Your task to perform on an android device: star an email in the gmail app Image 0: 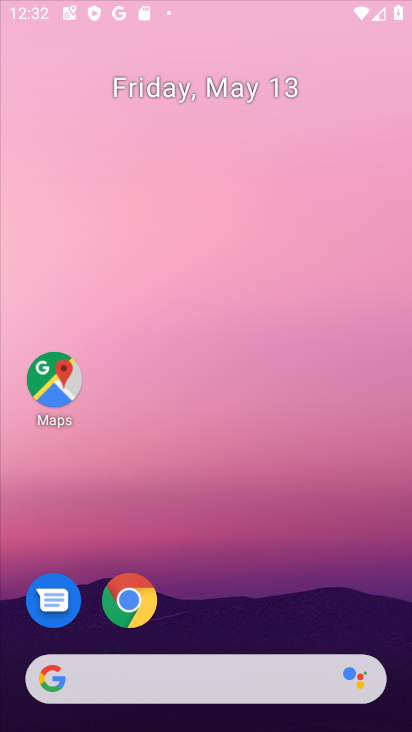
Step 0: drag from (238, 560) to (239, 185)
Your task to perform on an android device: star an email in the gmail app Image 1: 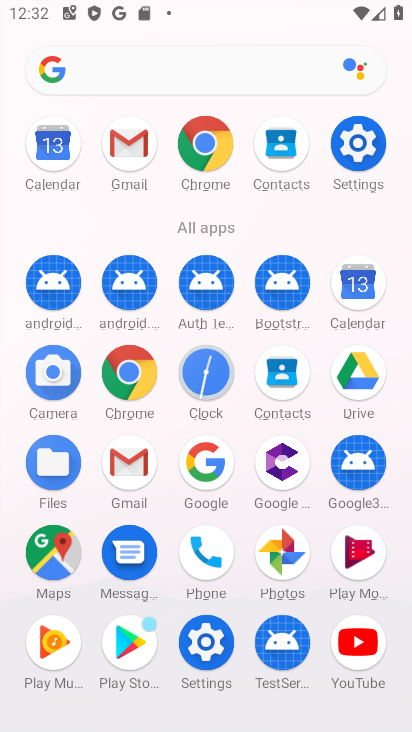
Step 1: drag from (247, 514) to (258, 99)
Your task to perform on an android device: star an email in the gmail app Image 2: 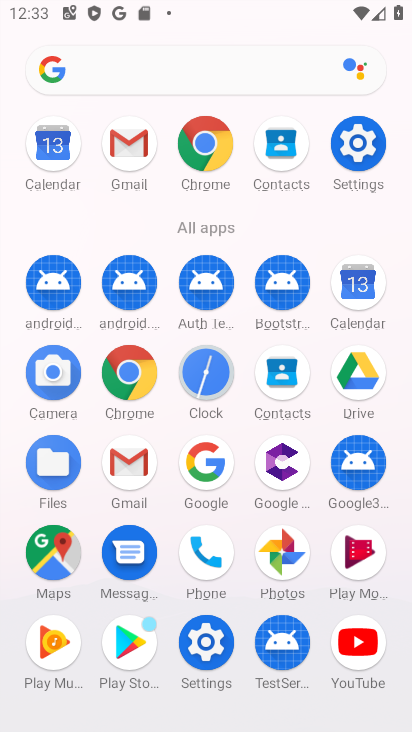
Step 2: click (119, 479)
Your task to perform on an android device: star an email in the gmail app Image 3: 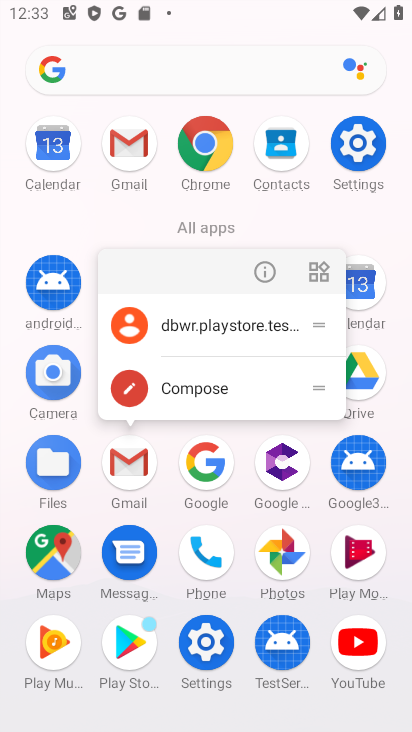
Step 3: click (266, 264)
Your task to perform on an android device: star an email in the gmail app Image 4: 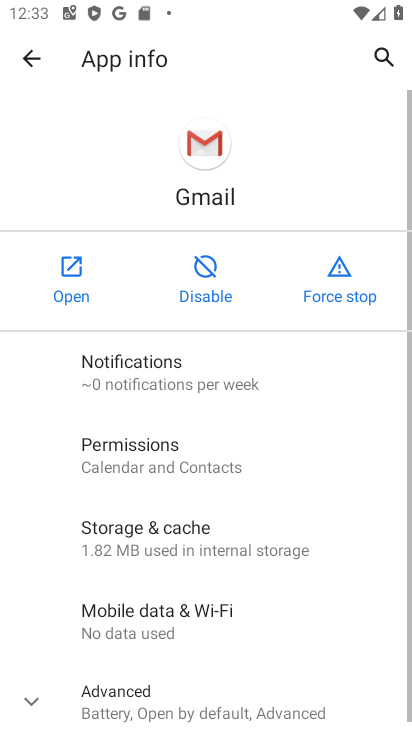
Step 4: click (59, 295)
Your task to perform on an android device: star an email in the gmail app Image 5: 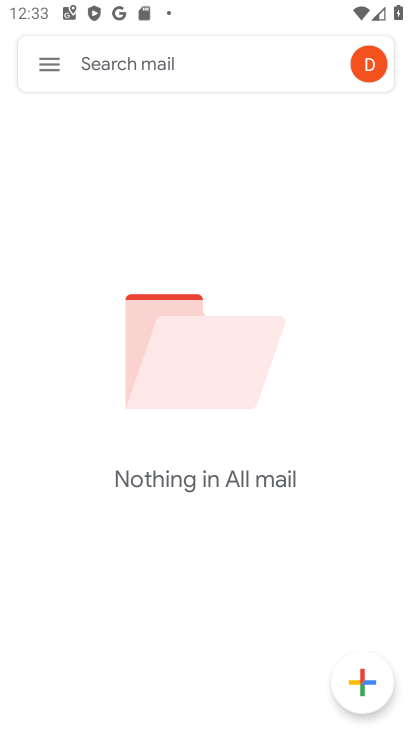
Step 5: drag from (289, 569) to (270, 248)
Your task to perform on an android device: star an email in the gmail app Image 6: 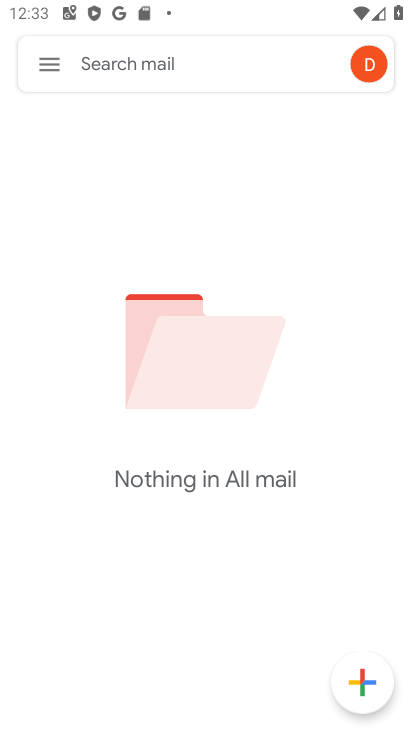
Step 6: click (47, 71)
Your task to perform on an android device: star an email in the gmail app Image 7: 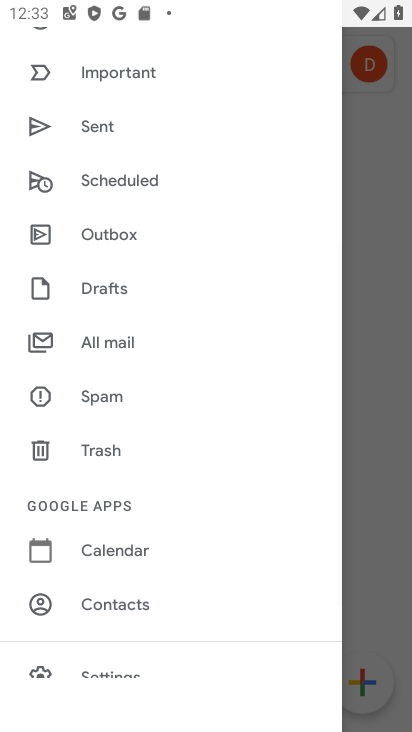
Step 7: drag from (248, 667) to (117, 217)
Your task to perform on an android device: star an email in the gmail app Image 8: 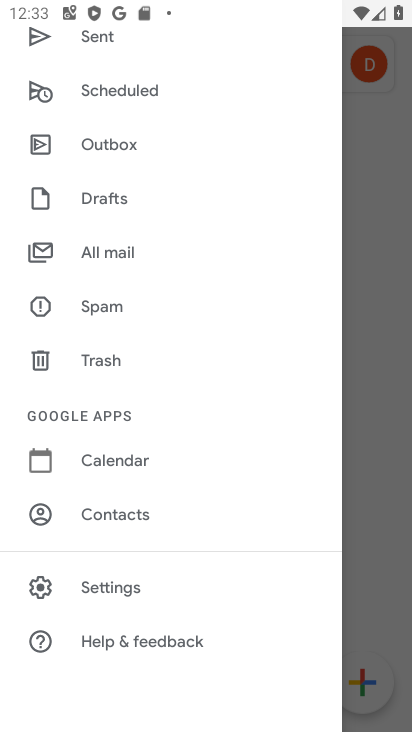
Step 8: drag from (174, 136) to (284, 617)
Your task to perform on an android device: star an email in the gmail app Image 9: 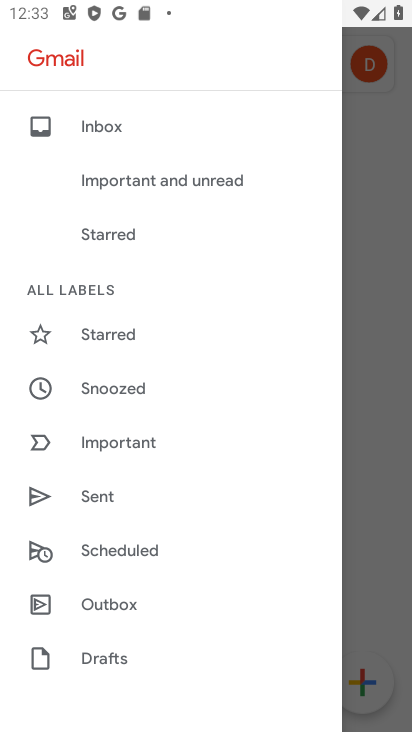
Step 9: click (158, 306)
Your task to perform on an android device: star an email in the gmail app Image 10: 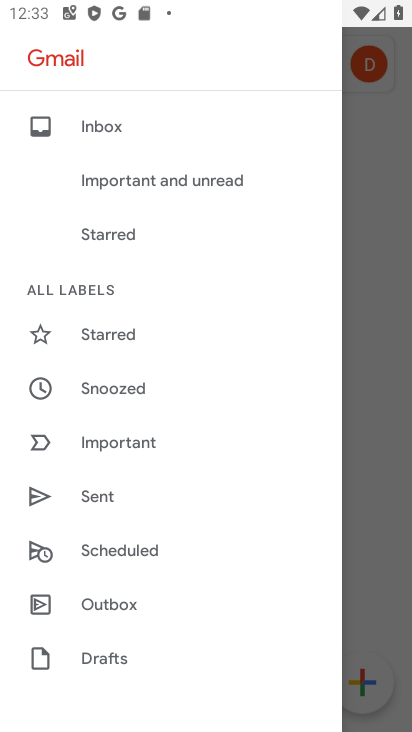
Step 10: click (112, 369)
Your task to perform on an android device: star an email in the gmail app Image 11: 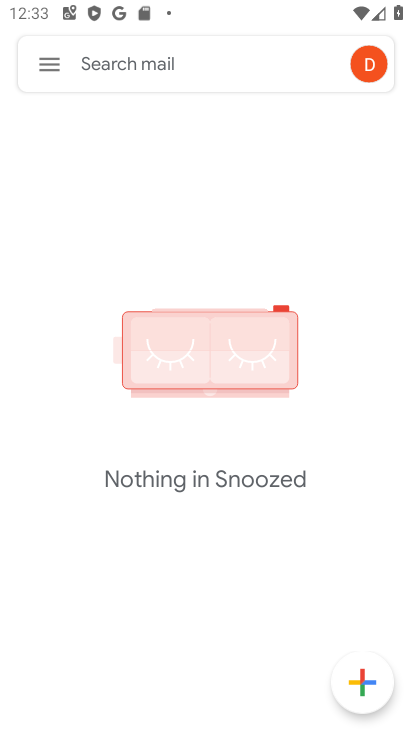
Step 11: click (55, 54)
Your task to perform on an android device: star an email in the gmail app Image 12: 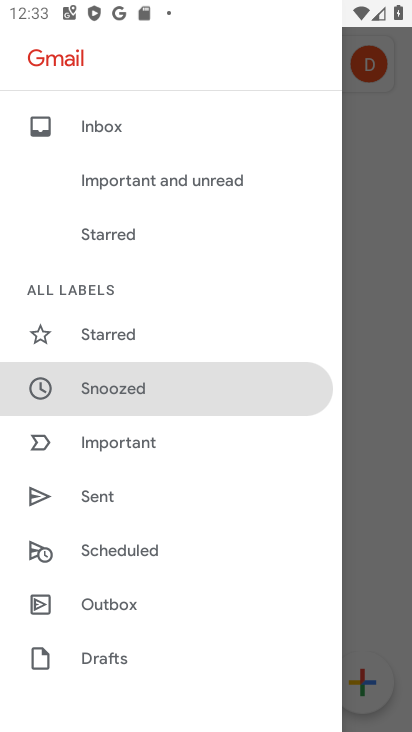
Step 12: click (108, 341)
Your task to perform on an android device: star an email in the gmail app Image 13: 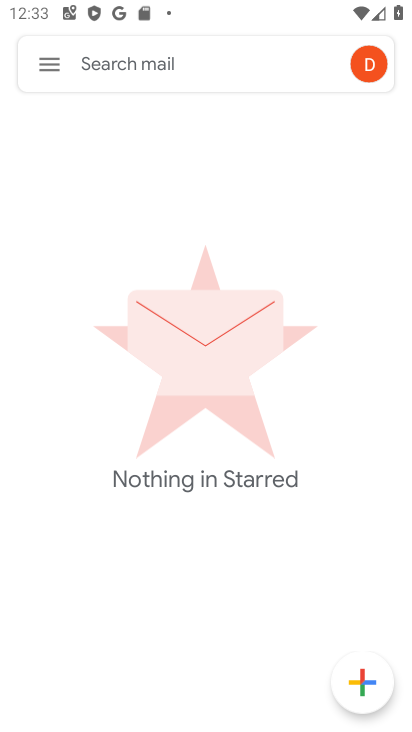
Step 13: task complete